Your task to perform on an android device: open sync settings in chrome Image 0: 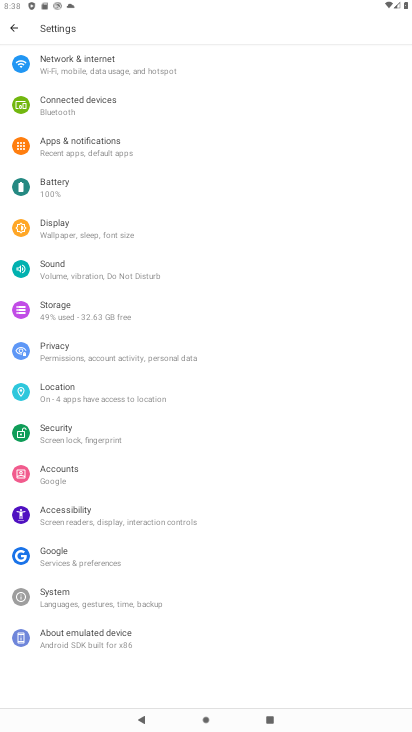
Step 0: press home button
Your task to perform on an android device: open sync settings in chrome Image 1: 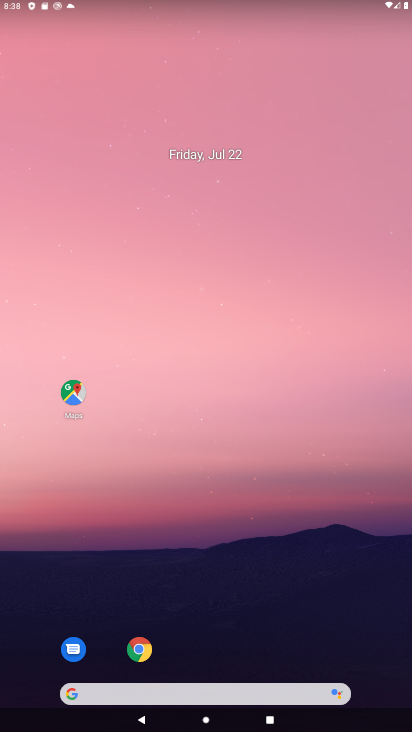
Step 1: click (142, 647)
Your task to perform on an android device: open sync settings in chrome Image 2: 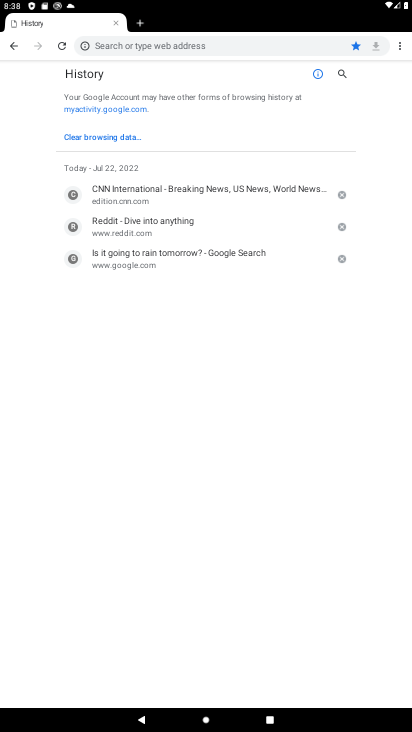
Step 2: task complete